Your task to perform on an android device: install app "Life360: Find Family & Friends" Image 0: 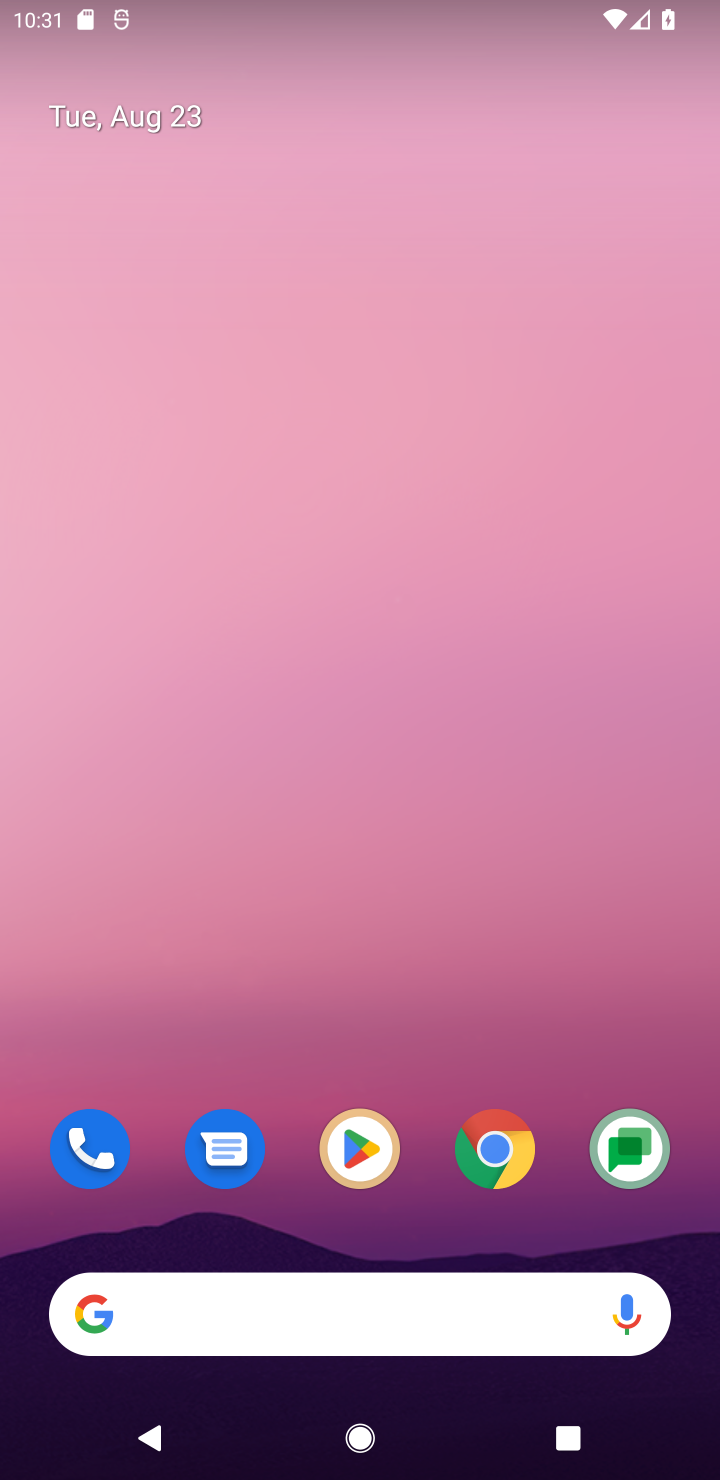
Step 0: click (378, 1188)
Your task to perform on an android device: install app "Life360: Find Family & Friends" Image 1: 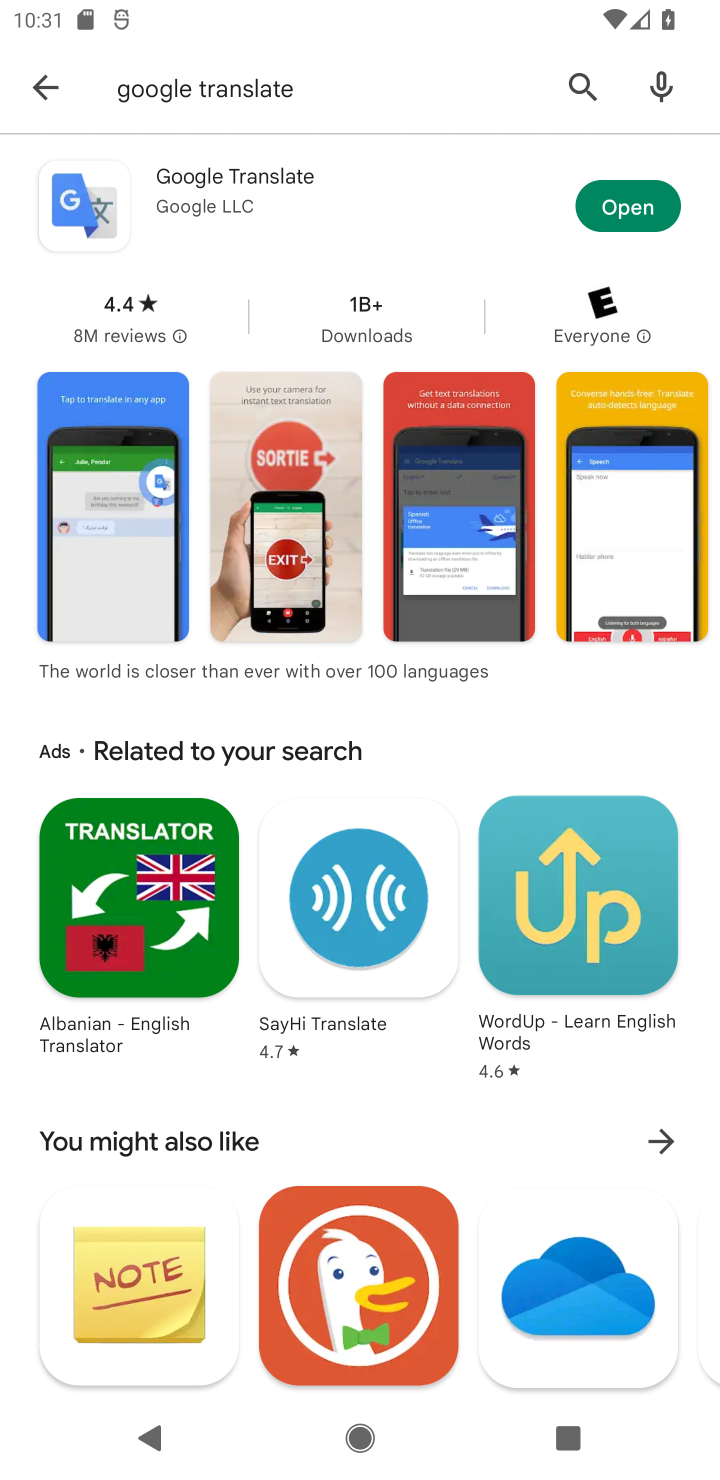
Step 1: click (576, 88)
Your task to perform on an android device: install app "Life360: Find Family & Friends" Image 2: 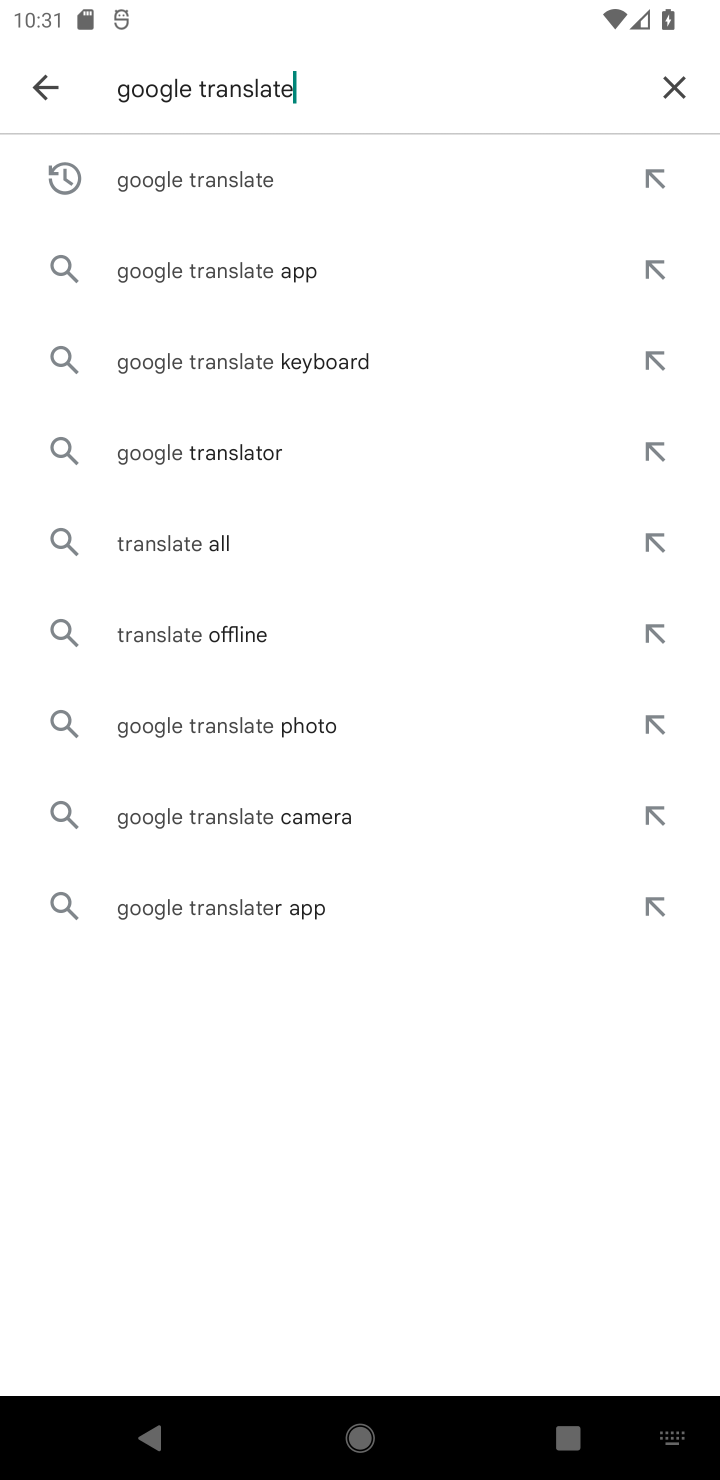
Step 2: click (670, 83)
Your task to perform on an android device: install app "Life360: Find Family & Friends" Image 3: 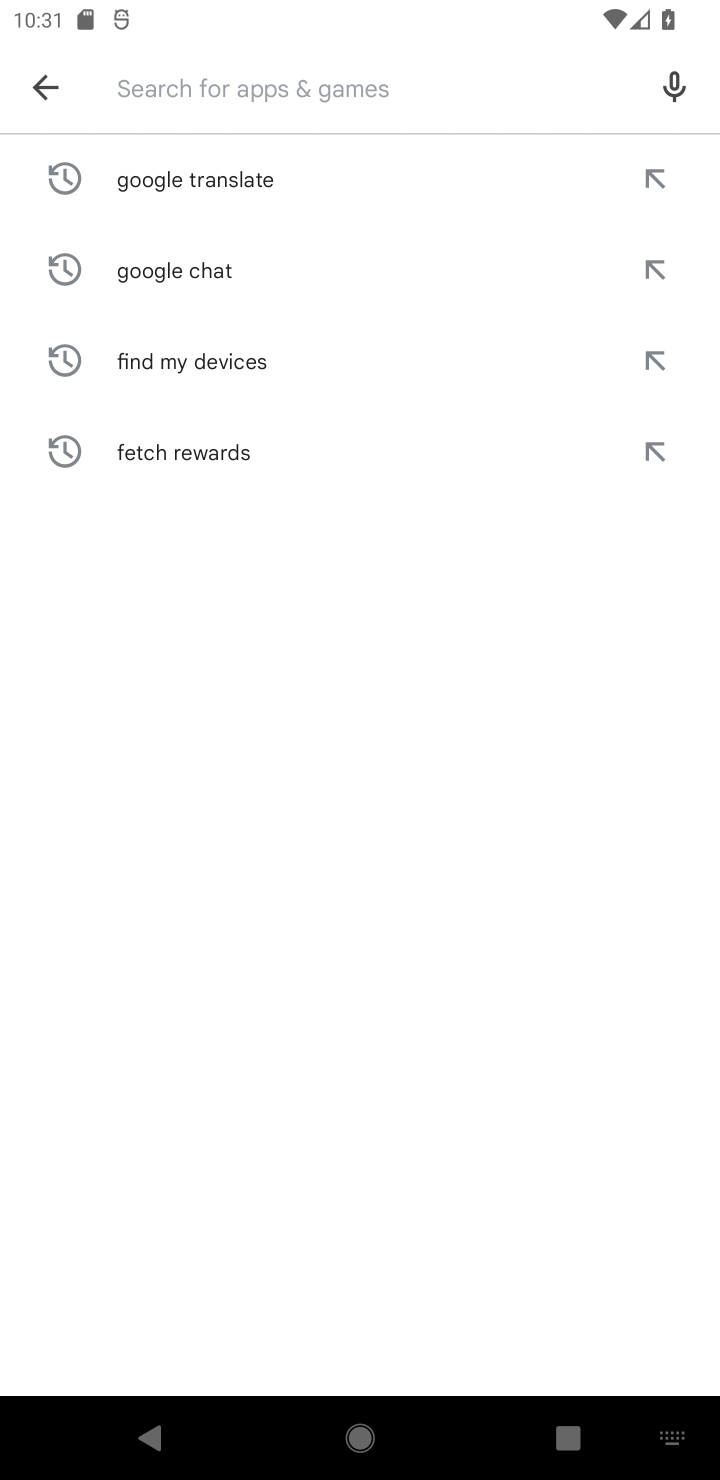
Step 3: type "life360"
Your task to perform on an android device: install app "Life360: Find Family & Friends" Image 4: 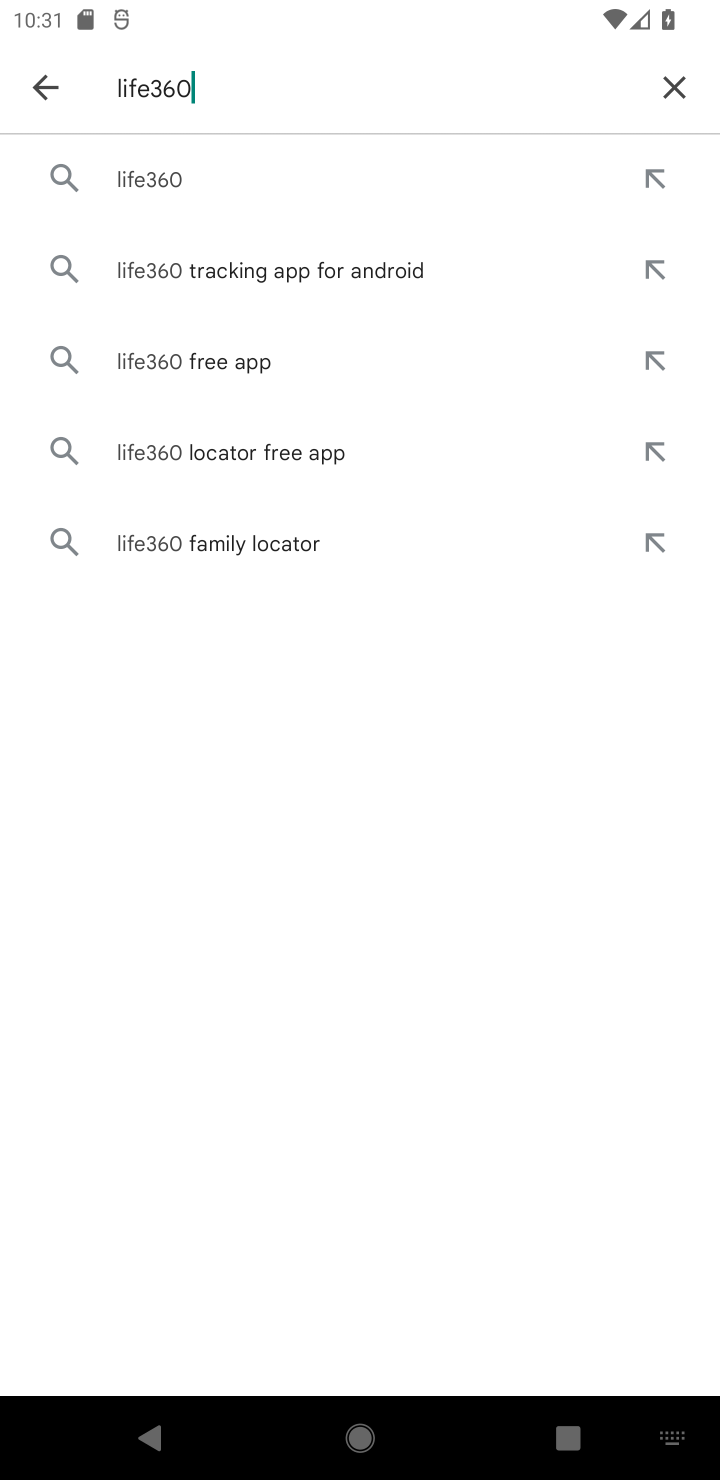
Step 4: click (263, 181)
Your task to perform on an android device: install app "Life360: Find Family & Friends" Image 5: 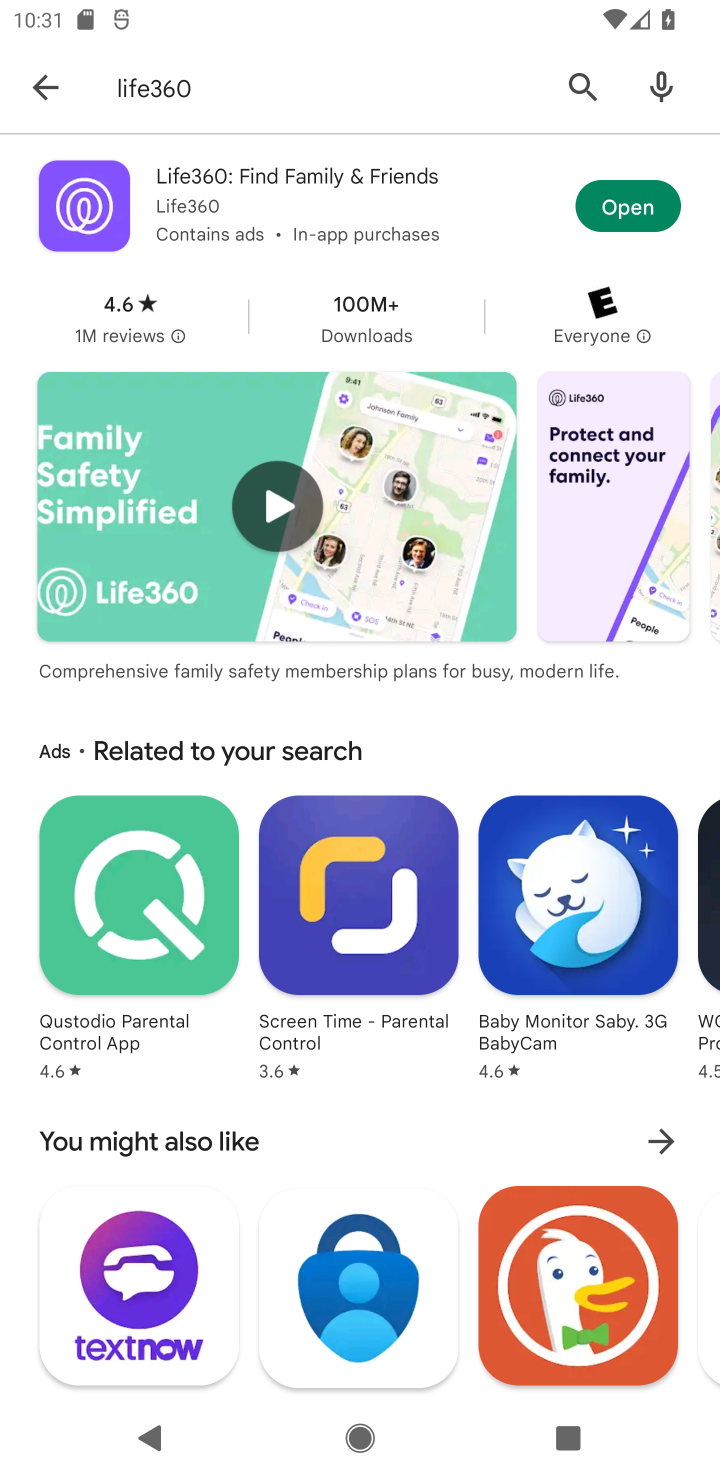
Step 5: click (595, 209)
Your task to perform on an android device: install app "Life360: Find Family & Friends" Image 6: 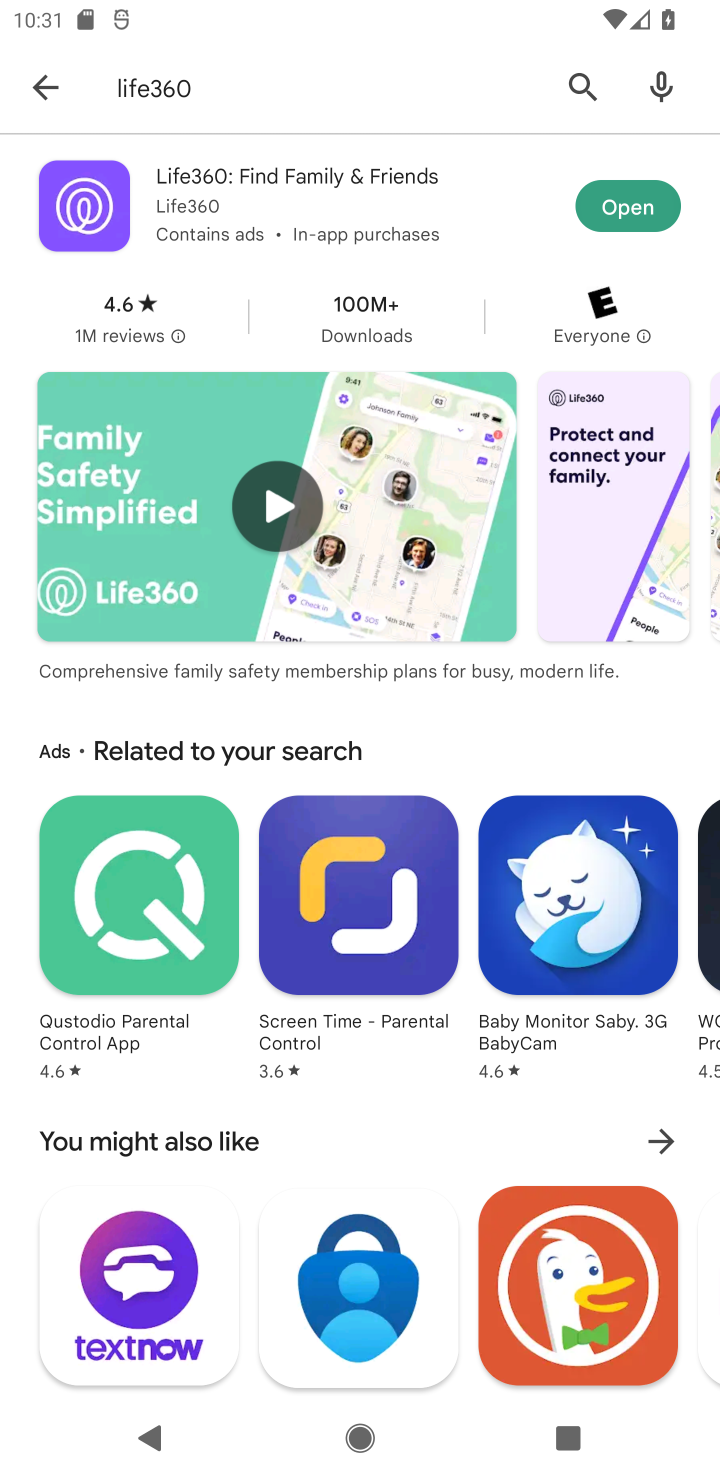
Step 6: task complete